Your task to perform on an android device: Open Google Maps Image 0: 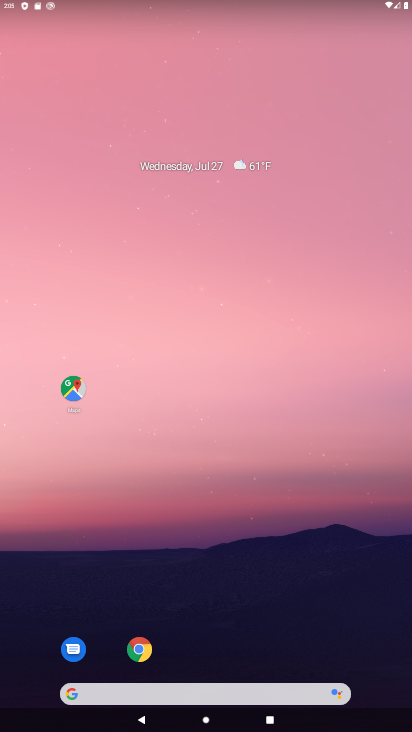
Step 0: drag from (313, 532) to (322, 41)
Your task to perform on an android device: Open Google Maps Image 1: 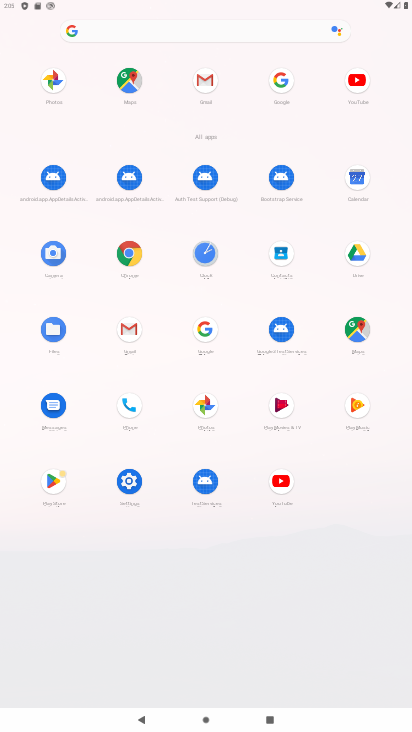
Step 1: click (350, 318)
Your task to perform on an android device: Open Google Maps Image 2: 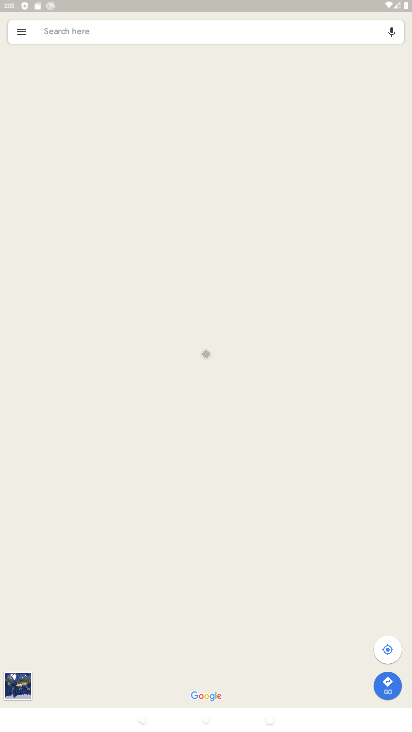
Step 2: task complete